Your task to perform on an android device: Open calendar and show me the fourth week of next month Image 0: 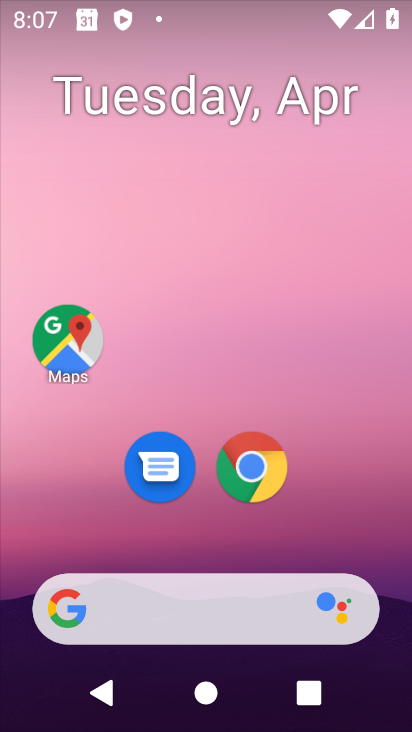
Step 0: drag from (383, 444) to (394, 45)
Your task to perform on an android device: Open calendar and show me the fourth week of next month Image 1: 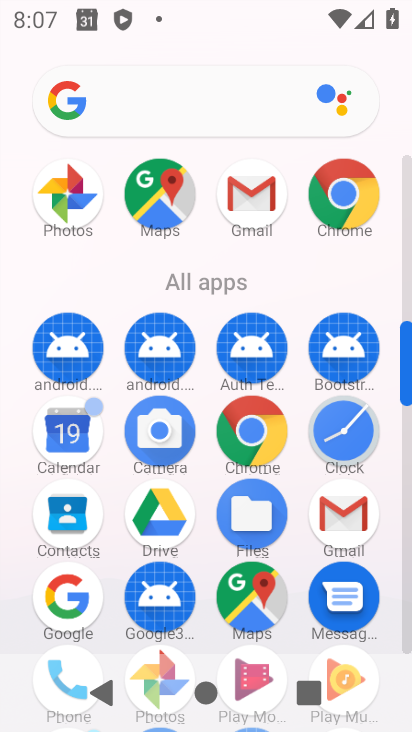
Step 1: click (60, 428)
Your task to perform on an android device: Open calendar and show me the fourth week of next month Image 2: 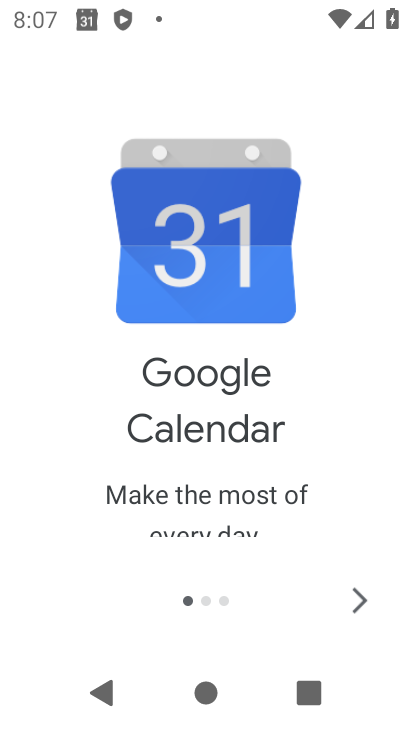
Step 2: click (367, 592)
Your task to perform on an android device: Open calendar and show me the fourth week of next month Image 3: 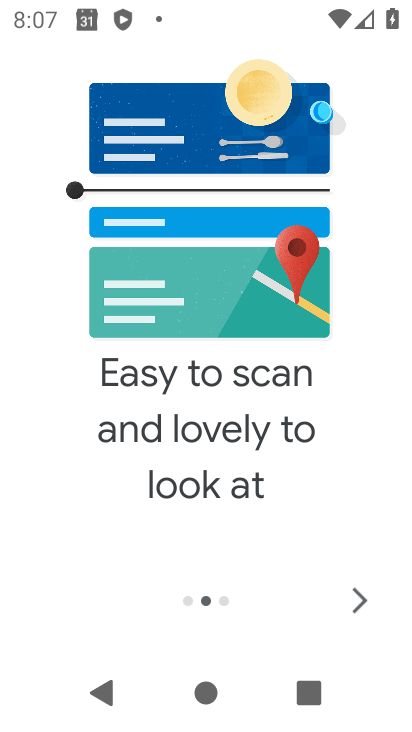
Step 3: click (367, 592)
Your task to perform on an android device: Open calendar and show me the fourth week of next month Image 4: 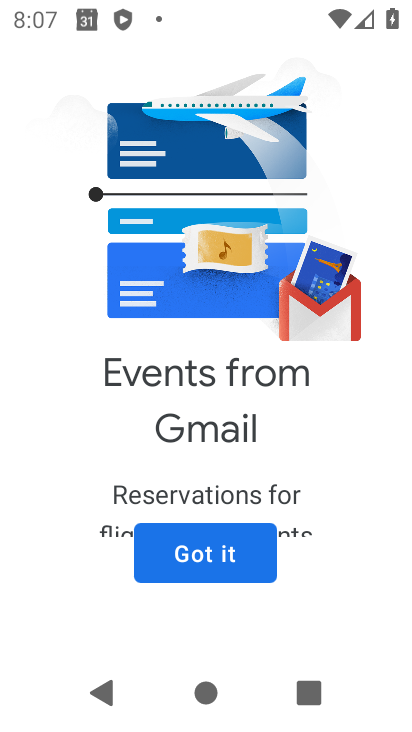
Step 4: click (193, 567)
Your task to perform on an android device: Open calendar and show me the fourth week of next month Image 5: 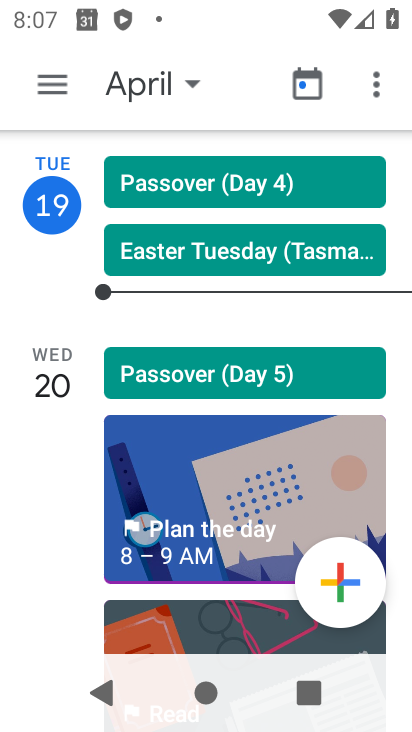
Step 5: click (195, 92)
Your task to perform on an android device: Open calendar and show me the fourth week of next month Image 6: 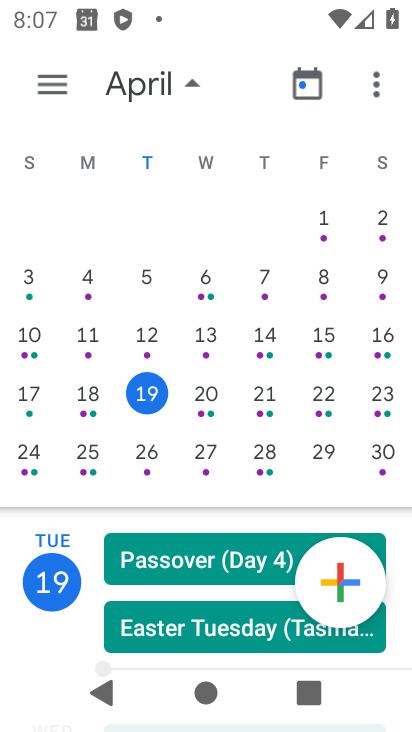
Step 6: drag from (351, 364) to (10, 455)
Your task to perform on an android device: Open calendar and show me the fourth week of next month Image 7: 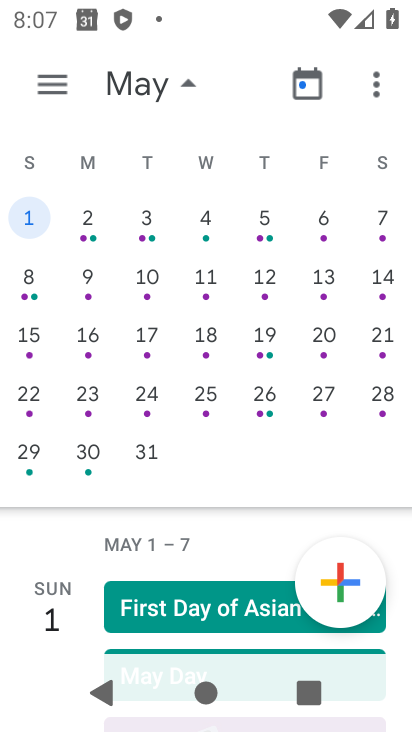
Step 7: click (50, 94)
Your task to perform on an android device: Open calendar and show me the fourth week of next month Image 8: 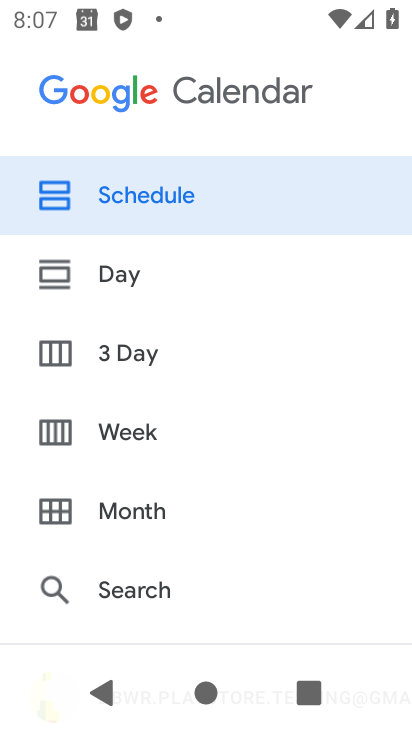
Step 8: click (85, 422)
Your task to perform on an android device: Open calendar and show me the fourth week of next month Image 9: 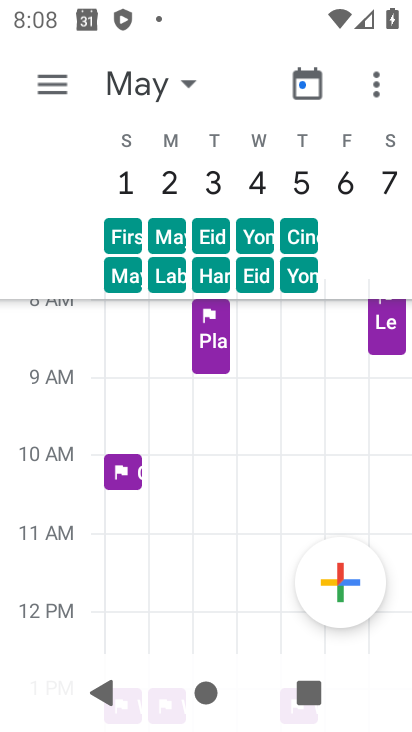
Step 9: task complete